Your task to perform on an android device: turn notification dots on Image 0: 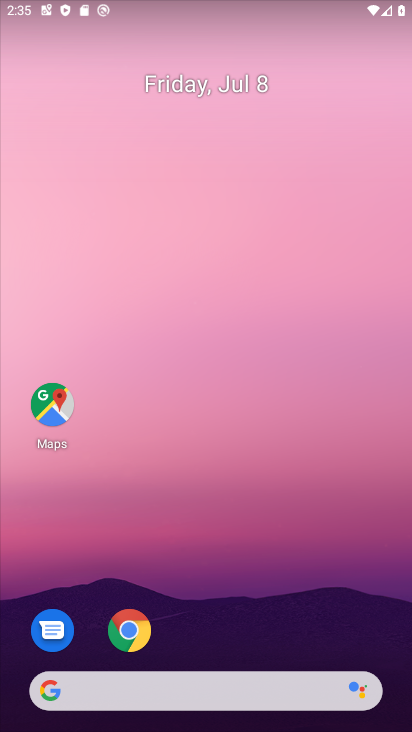
Step 0: drag from (292, 612) to (250, 186)
Your task to perform on an android device: turn notification dots on Image 1: 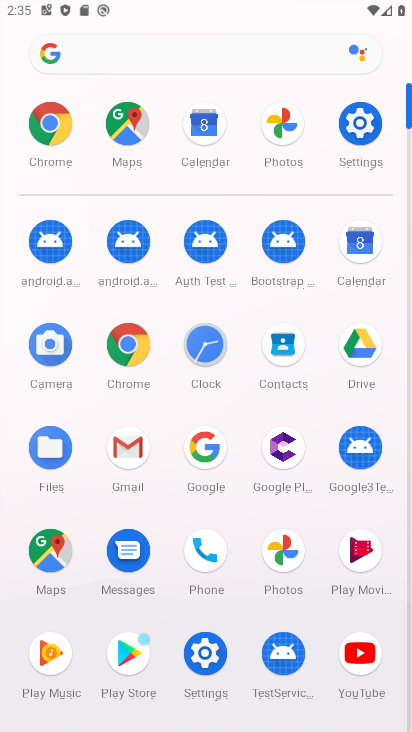
Step 1: click (360, 115)
Your task to perform on an android device: turn notification dots on Image 2: 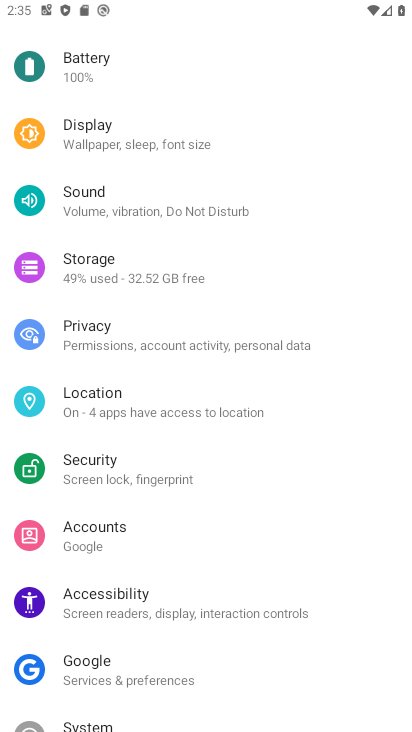
Step 2: drag from (190, 292) to (183, 501)
Your task to perform on an android device: turn notification dots on Image 3: 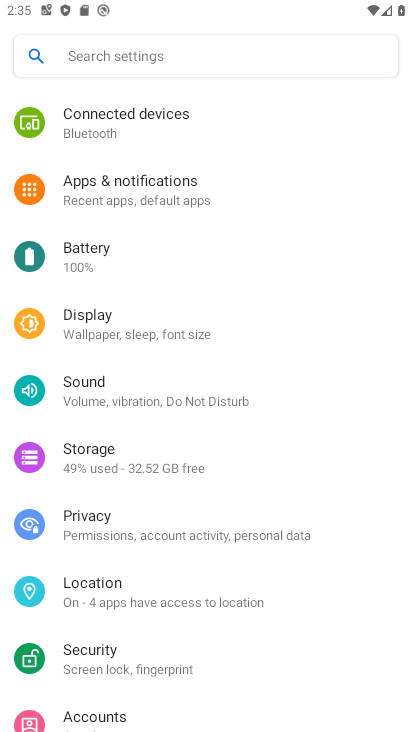
Step 3: click (143, 202)
Your task to perform on an android device: turn notification dots on Image 4: 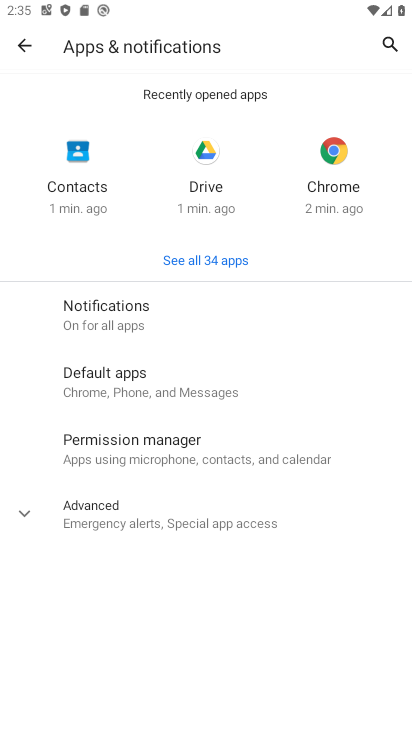
Step 4: task complete